Your task to perform on an android device: open chrome and create a bookmark for the current page Image 0: 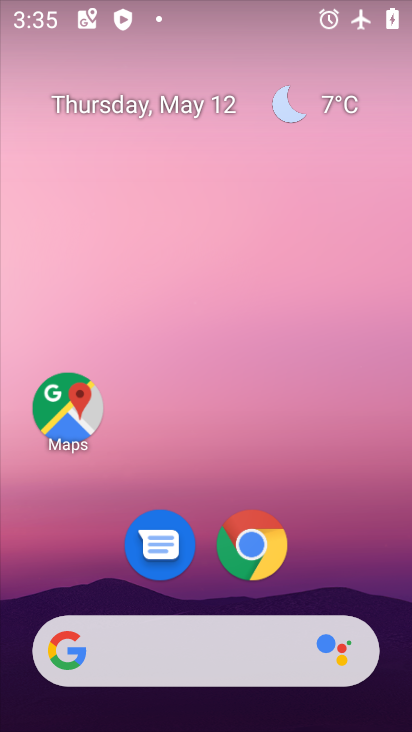
Step 0: click (253, 547)
Your task to perform on an android device: open chrome and create a bookmark for the current page Image 1: 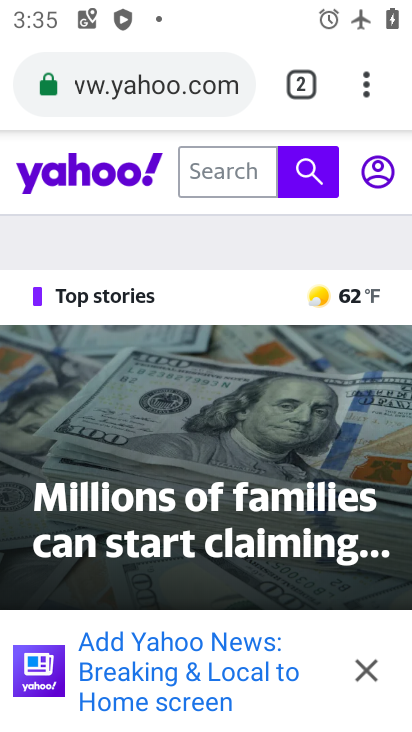
Step 1: click (370, 96)
Your task to perform on an android device: open chrome and create a bookmark for the current page Image 2: 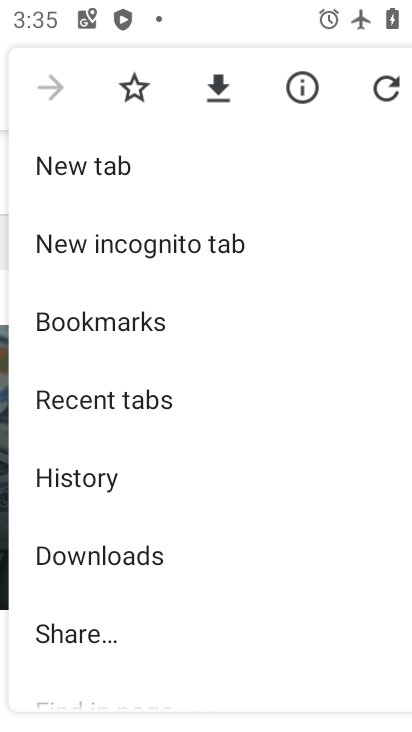
Step 2: click (129, 89)
Your task to perform on an android device: open chrome and create a bookmark for the current page Image 3: 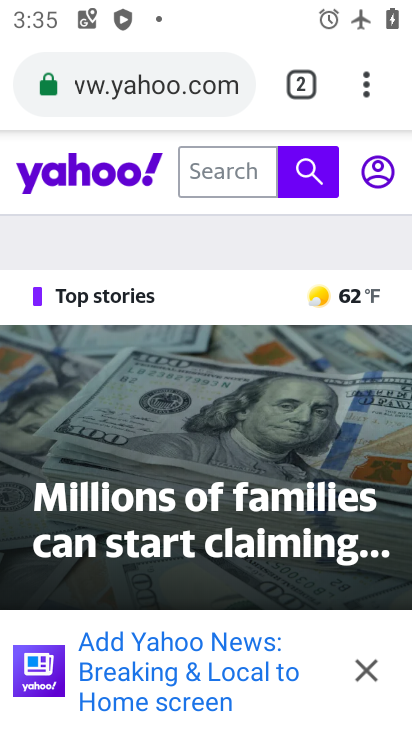
Step 3: task complete